Your task to perform on an android device: Open calendar and show me the second week of next month Image 0: 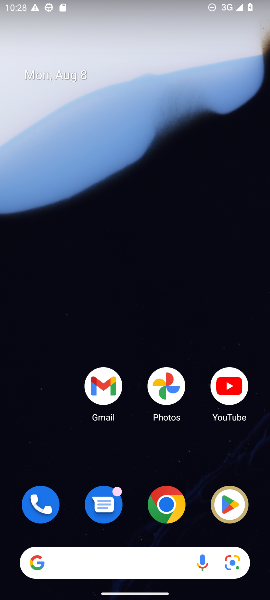
Step 0: drag from (122, 460) to (144, 19)
Your task to perform on an android device: Open calendar and show me the second week of next month Image 1: 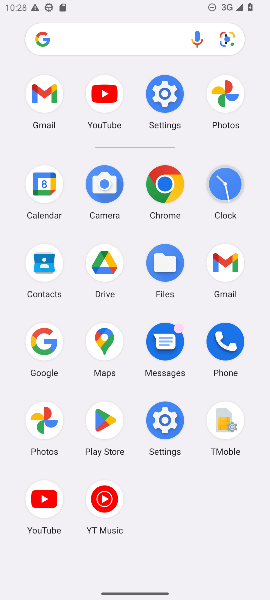
Step 1: click (39, 205)
Your task to perform on an android device: Open calendar and show me the second week of next month Image 2: 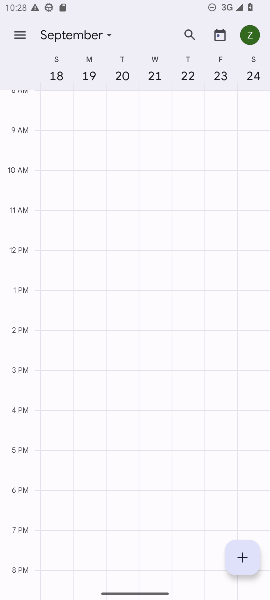
Step 2: task complete